Your task to perform on an android device: Open the web browser Image 0: 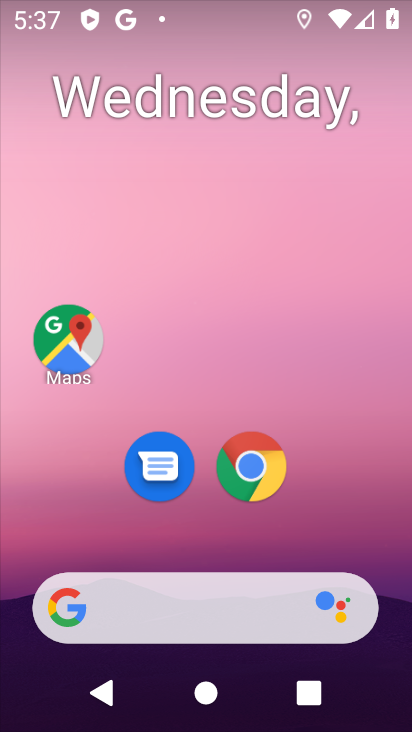
Step 0: click (236, 458)
Your task to perform on an android device: Open the web browser Image 1: 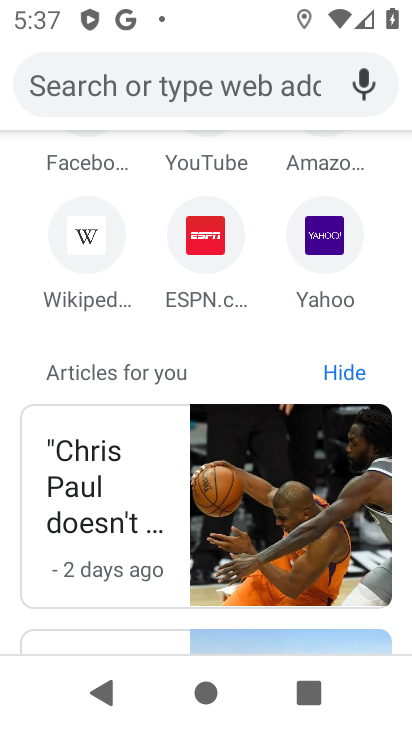
Step 1: click (195, 86)
Your task to perform on an android device: Open the web browser Image 2: 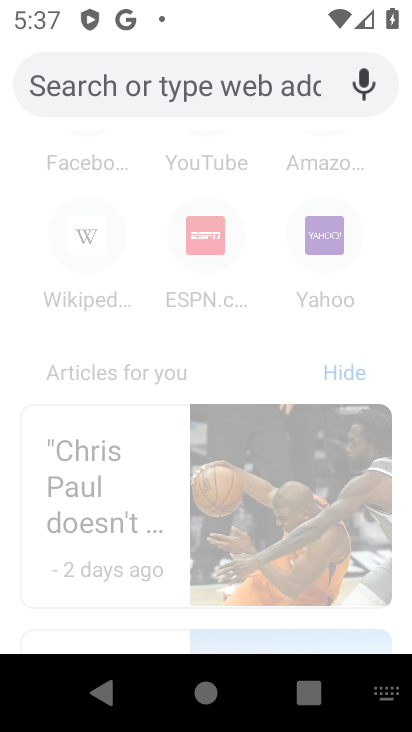
Step 2: type "web browser"
Your task to perform on an android device: Open the web browser Image 3: 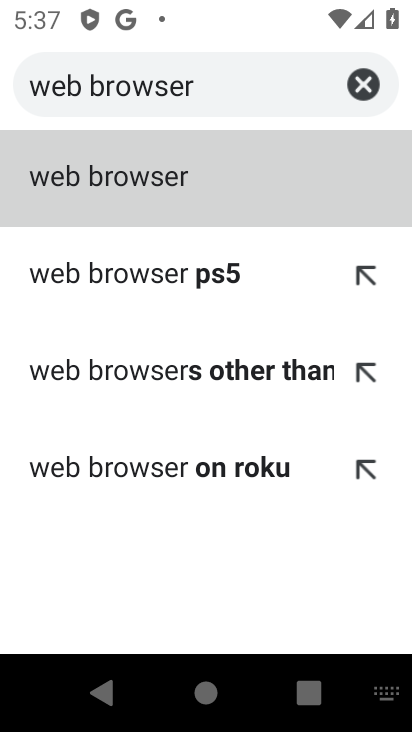
Step 3: click (128, 182)
Your task to perform on an android device: Open the web browser Image 4: 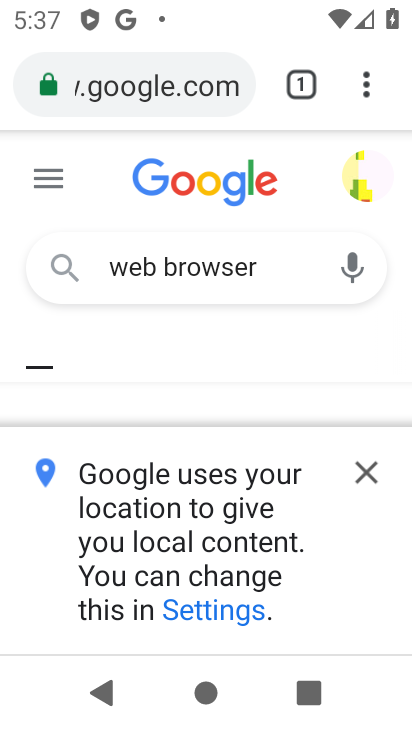
Step 4: click (359, 462)
Your task to perform on an android device: Open the web browser Image 5: 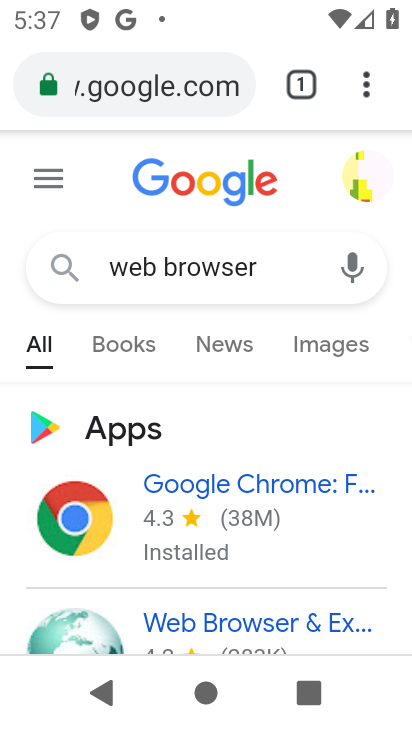
Step 5: task complete